Your task to perform on an android device: Turn on the flashlight Image 0: 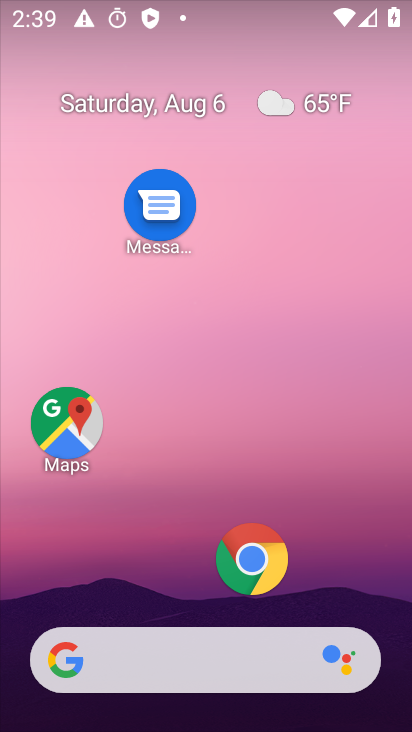
Step 0: drag from (183, 520) to (174, 62)
Your task to perform on an android device: Turn on the flashlight Image 1: 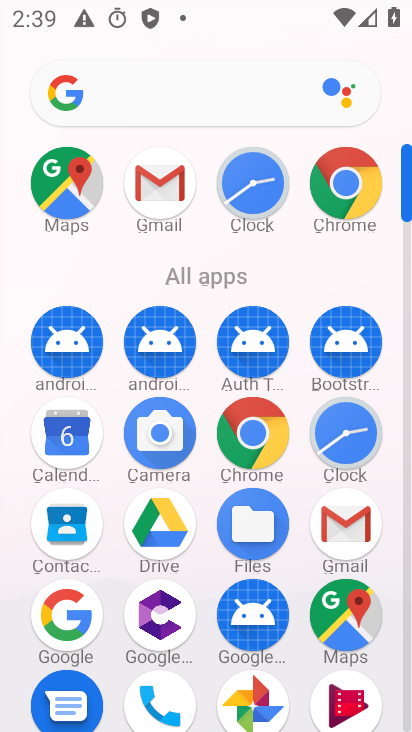
Step 1: task complete